Your task to perform on an android device: Go to calendar. Show me events next week Image 0: 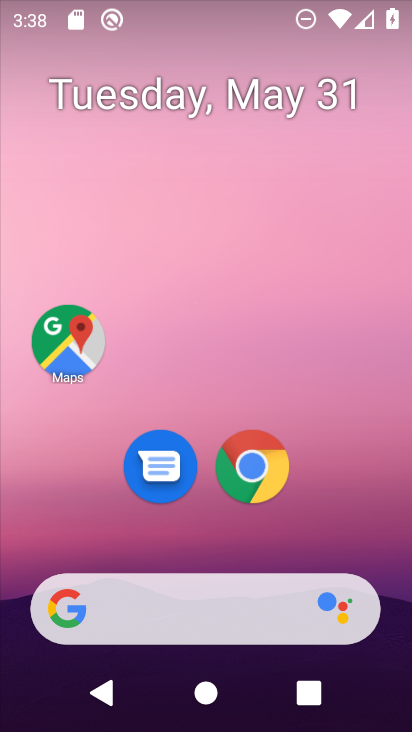
Step 0: drag from (177, 542) to (222, 71)
Your task to perform on an android device: Go to calendar. Show me events next week Image 1: 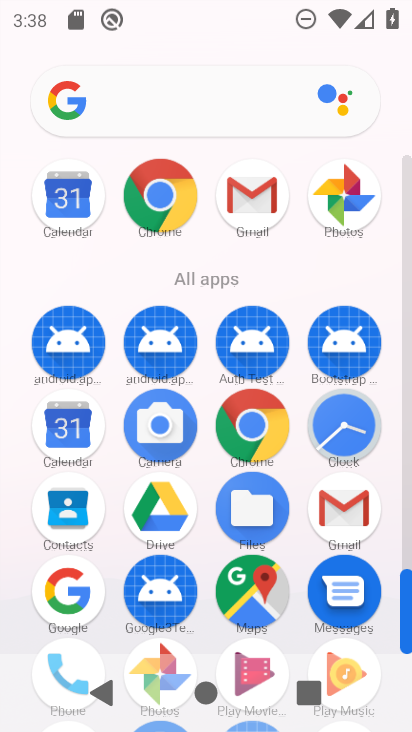
Step 1: click (63, 437)
Your task to perform on an android device: Go to calendar. Show me events next week Image 2: 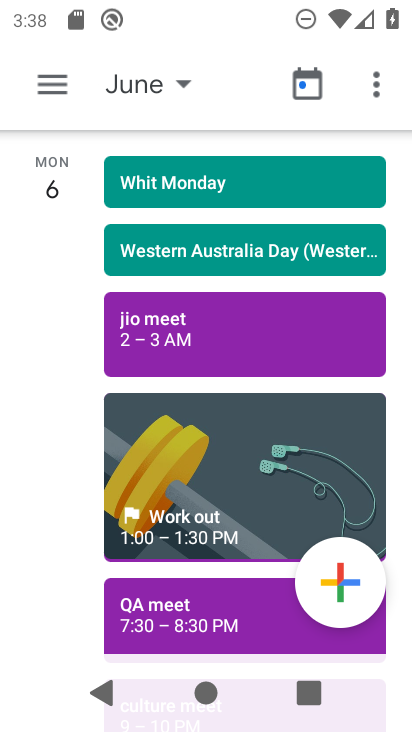
Step 2: click (159, 182)
Your task to perform on an android device: Go to calendar. Show me events next week Image 3: 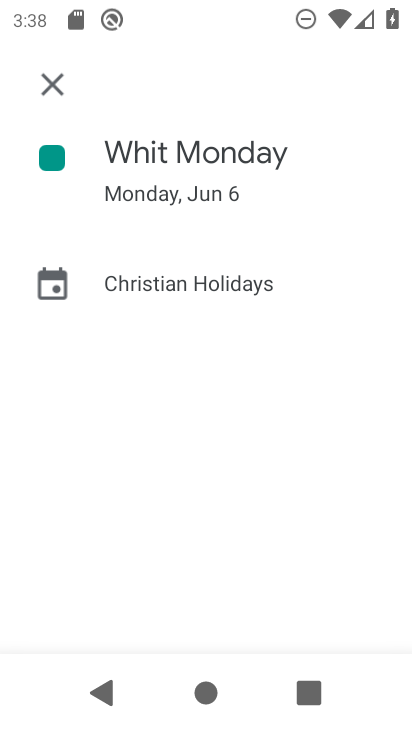
Step 3: task complete